Your task to perform on an android device: turn on data saver in the chrome app Image 0: 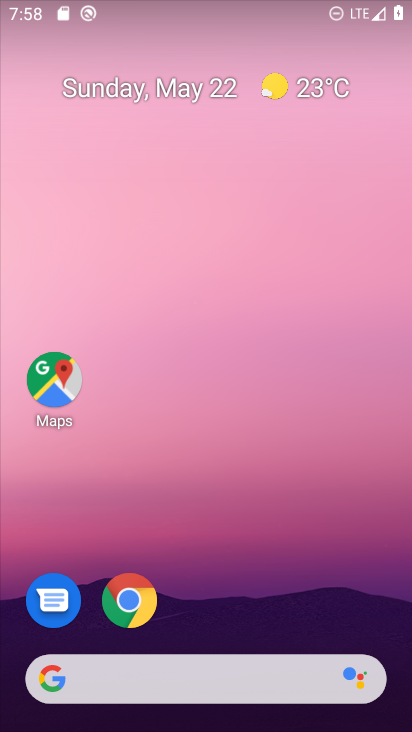
Step 0: drag from (323, 603) to (409, 616)
Your task to perform on an android device: turn on data saver in the chrome app Image 1: 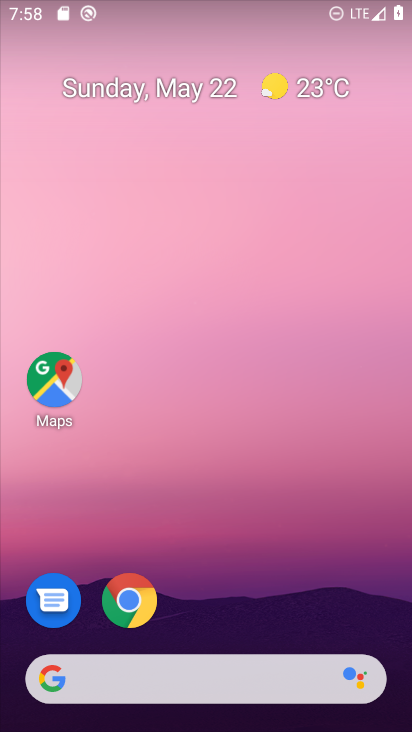
Step 1: drag from (355, 614) to (268, 5)
Your task to perform on an android device: turn on data saver in the chrome app Image 2: 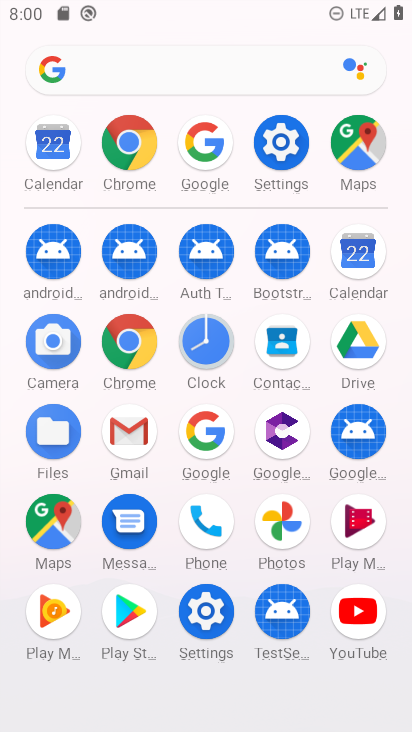
Step 2: click (128, 324)
Your task to perform on an android device: turn on data saver in the chrome app Image 3: 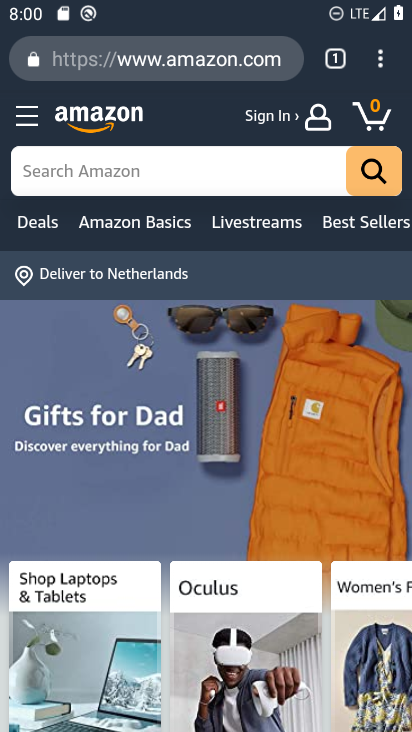
Step 3: press back button
Your task to perform on an android device: turn on data saver in the chrome app Image 4: 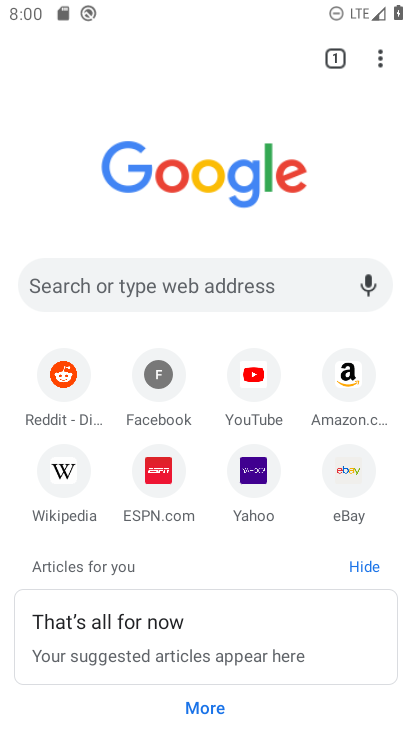
Step 4: click (380, 51)
Your task to perform on an android device: turn on data saver in the chrome app Image 5: 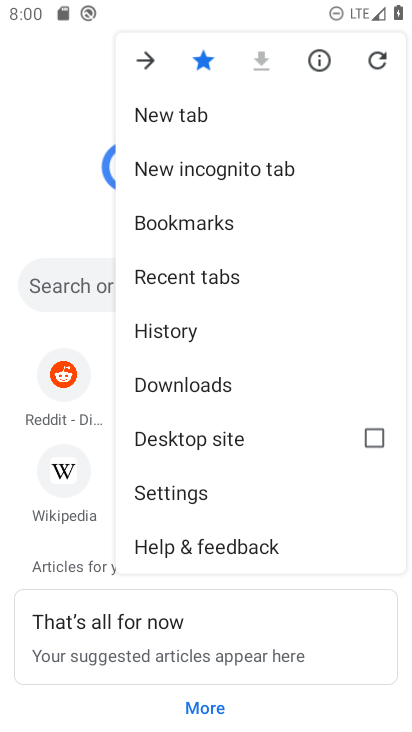
Step 5: click (241, 496)
Your task to perform on an android device: turn on data saver in the chrome app Image 6: 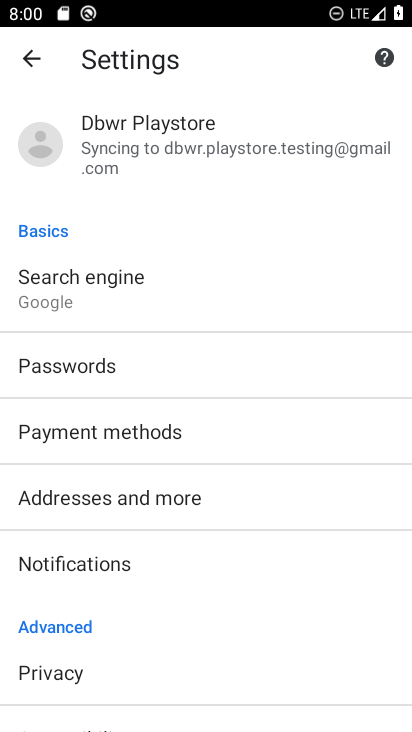
Step 6: drag from (149, 663) to (199, 129)
Your task to perform on an android device: turn on data saver in the chrome app Image 7: 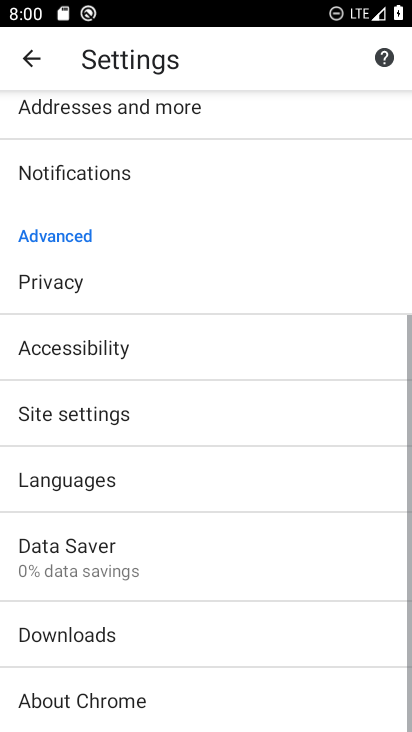
Step 7: click (156, 566)
Your task to perform on an android device: turn on data saver in the chrome app Image 8: 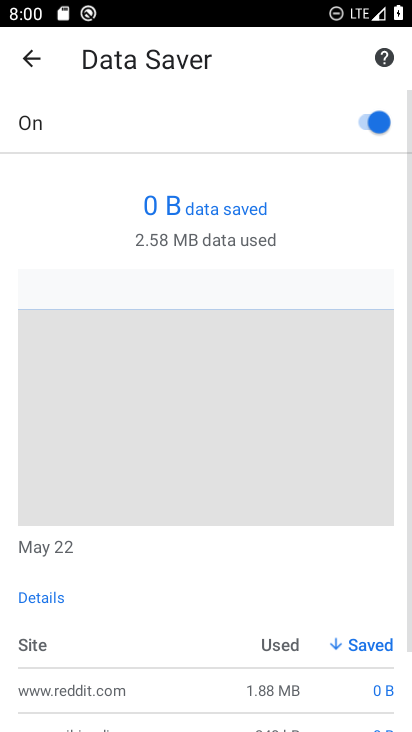
Step 8: task complete